Your task to perform on an android device: move a message to another label in the gmail app Image 0: 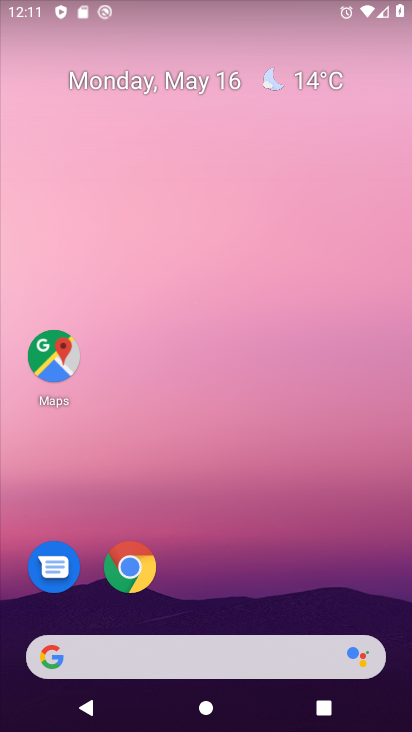
Step 0: drag from (301, 532) to (274, 2)
Your task to perform on an android device: move a message to another label in the gmail app Image 1: 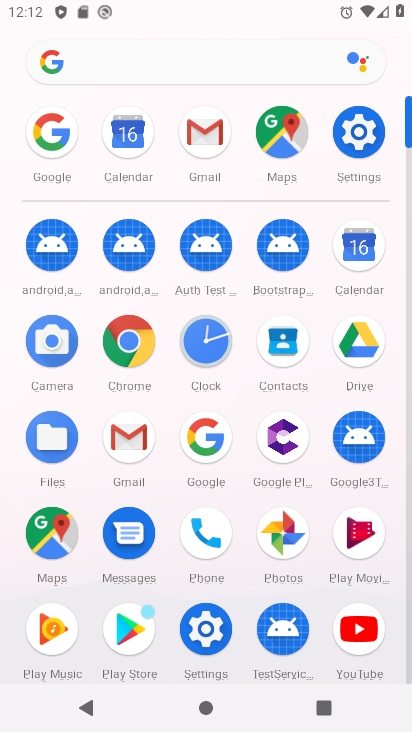
Step 1: click (126, 428)
Your task to perform on an android device: move a message to another label in the gmail app Image 2: 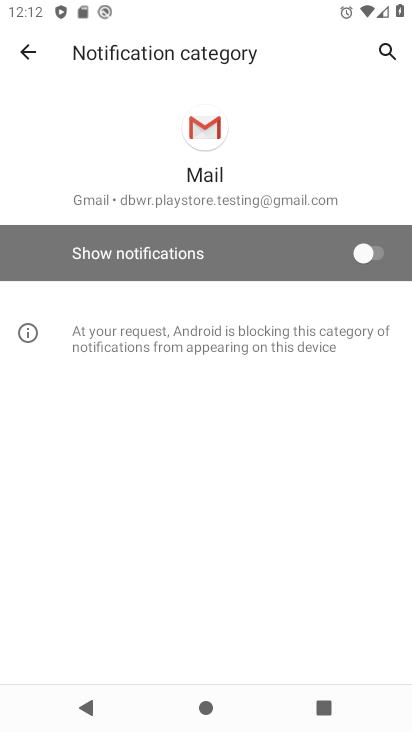
Step 2: click (22, 52)
Your task to perform on an android device: move a message to another label in the gmail app Image 3: 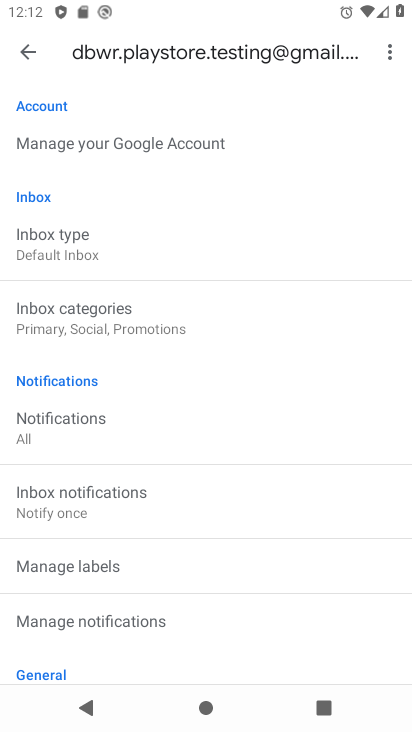
Step 3: click (19, 54)
Your task to perform on an android device: move a message to another label in the gmail app Image 4: 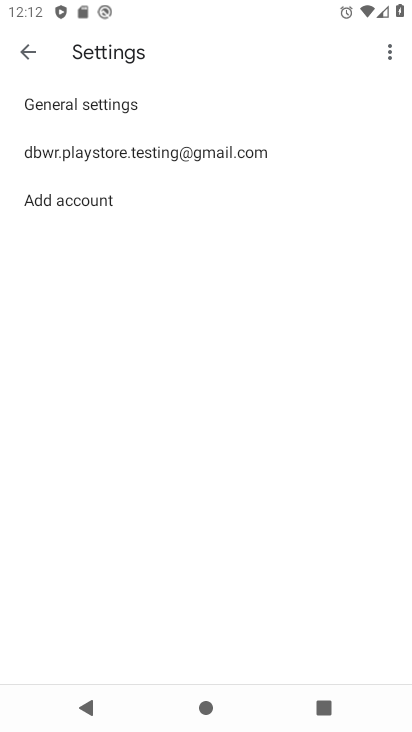
Step 4: click (32, 49)
Your task to perform on an android device: move a message to another label in the gmail app Image 5: 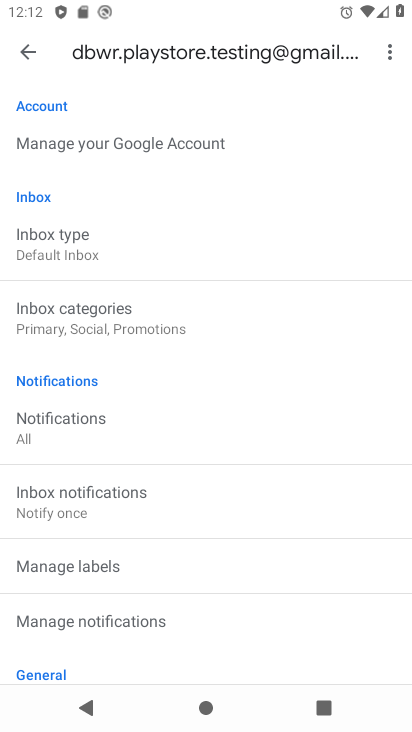
Step 5: click (25, 55)
Your task to perform on an android device: move a message to another label in the gmail app Image 6: 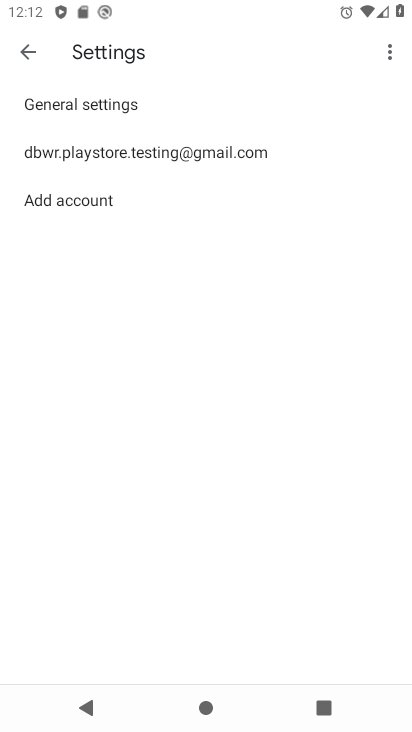
Step 6: click (27, 53)
Your task to perform on an android device: move a message to another label in the gmail app Image 7: 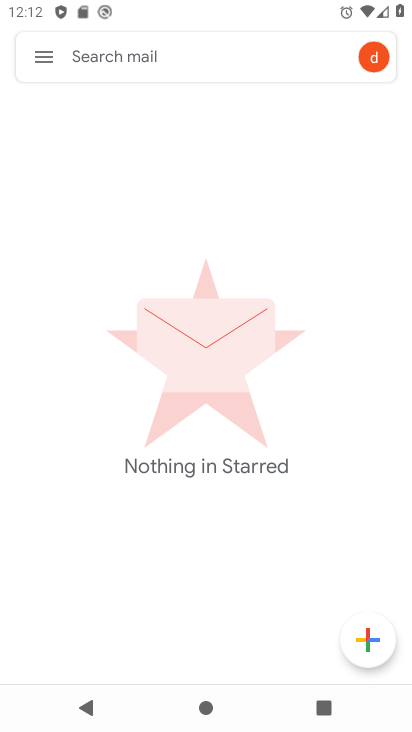
Step 7: click (32, 53)
Your task to perform on an android device: move a message to another label in the gmail app Image 8: 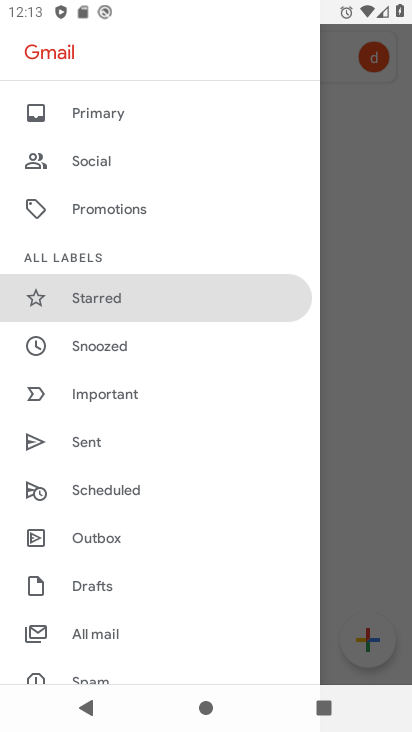
Step 8: click (122, 624)
Your task to perform on an android device: move a message to another label in the gmail app Image 9: 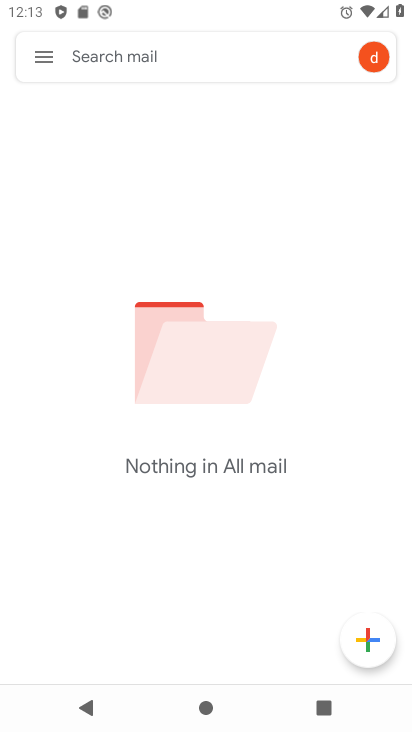
Step 9: task complete